Your task to perform on an android device: Show me the alarms in the clock app Image 0: 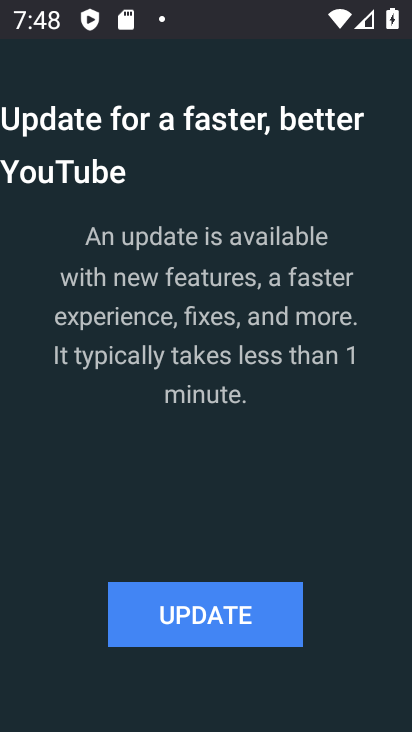
Step 0: click (258, 610)
Your task to perform on an android device: Show me the alarms in the clock app Image 1: 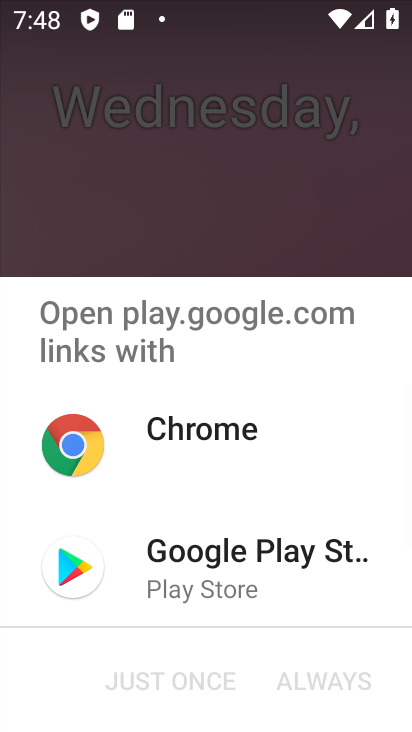
Step 1: click (154, 576)
Your task to perform on an android device: Show me the alarms in the clock app Image 2: 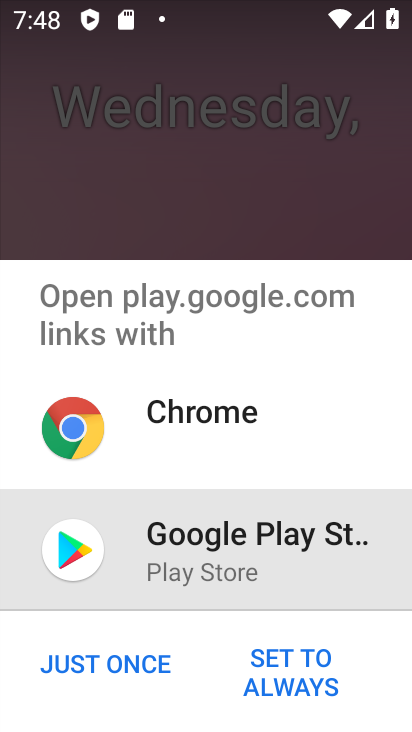
Step 2: click (288, 665)
Your task to perform on an android device: Show me the alarms in the clock app Image 3: 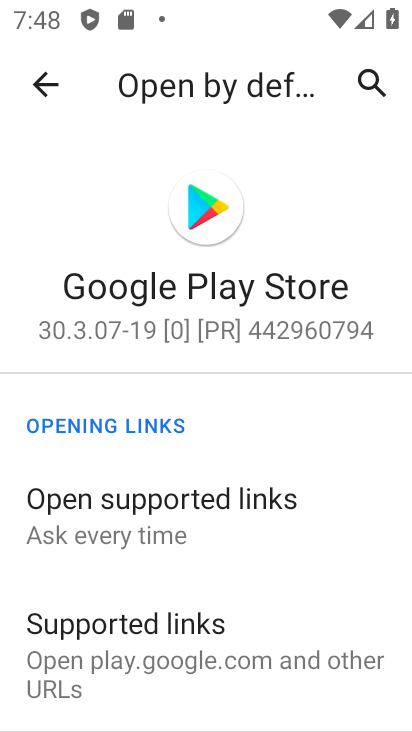
Step 3: drag from (201, 602) to (264, 178)
Your task to perform on an android device: Show me the alarms in the clock app Image 4: 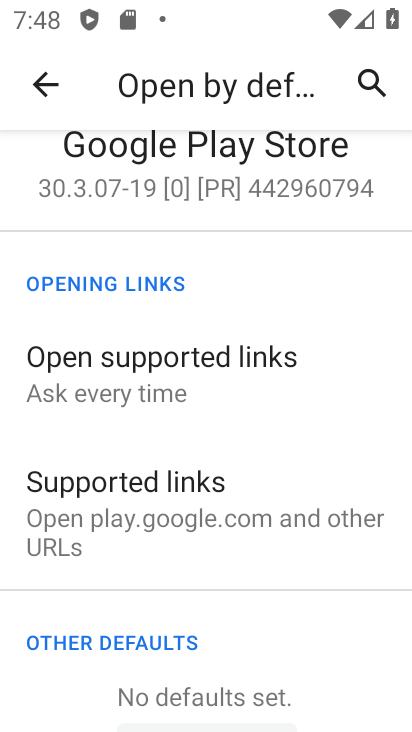
Step 4: drag from (263, 702) to (352, 413)
Your task to perform on an android device: Show me the alarms in the clock app Image 5: 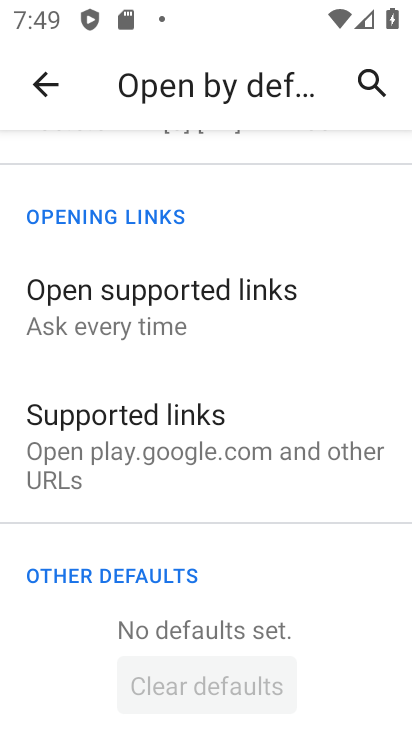
Step 5: press home button
Your task to perform on an android device: Show me the alarms in the clock app Image 6: 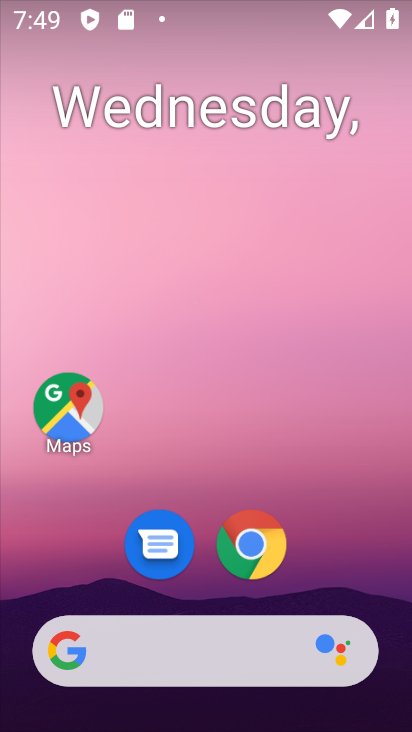
Step 6: drag from (206, 672) to (268, 323)
Your task to perform on an android device: Show me the alarms in the clock app Image 7: 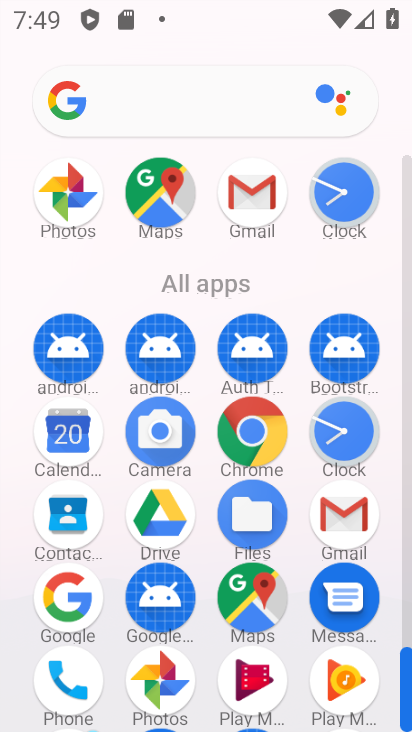
Step 7: click (335, 446)
Your task to perform on an android device: Show me the alarms in the clock app Image 8: 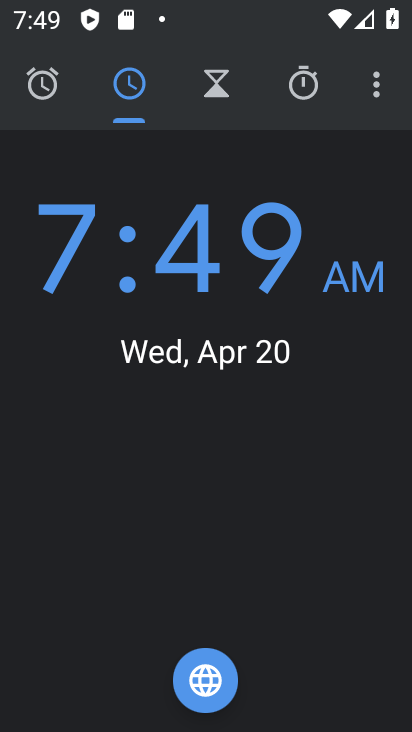
Step 8: click (37, 84)
Your task to perform on an android device: Show me the alarms in the clock app Image 9: 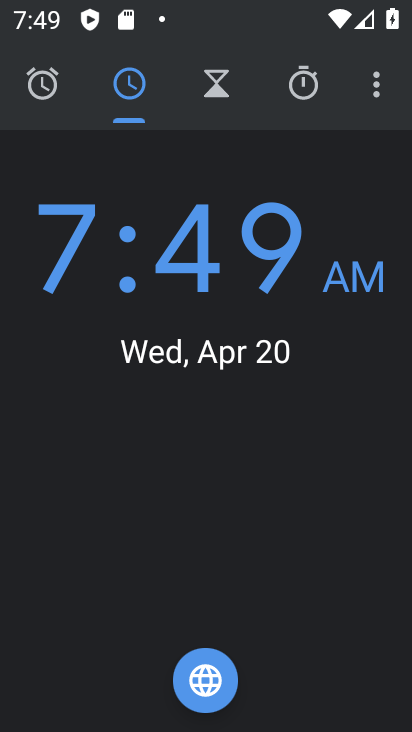
Step 9: click (43, 89)
Your task to perform on an android device: Show me the alarms in the clock app Image 10: 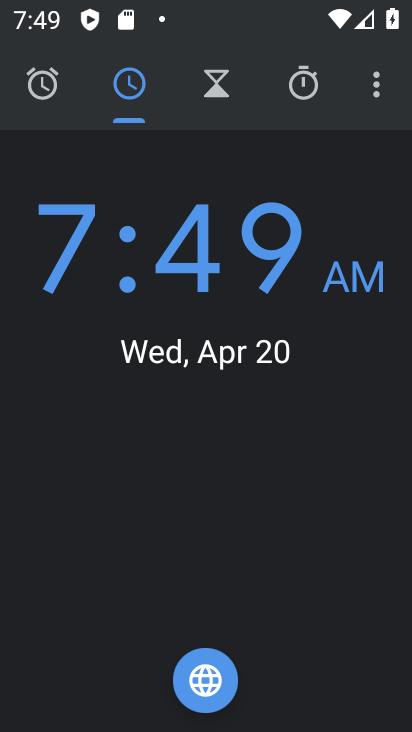
Step 10: click (50, 93)
Your task to perform on an android device: Show me the alarms in the clock app Image 11: 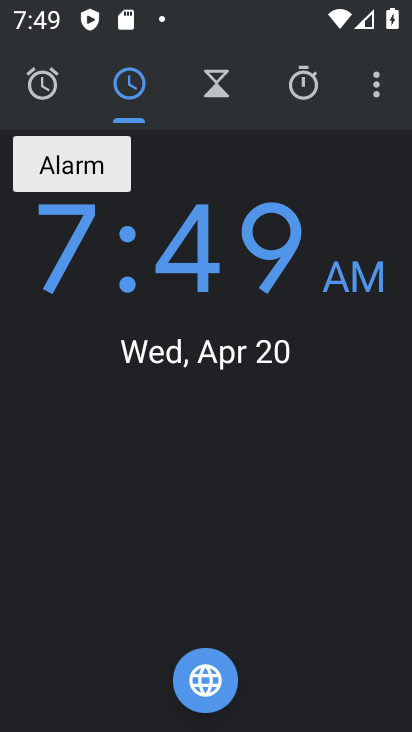
Step 11: click (43, 89)
Your task to perform on an android device: Show me the alarms in the clock app Image 12: 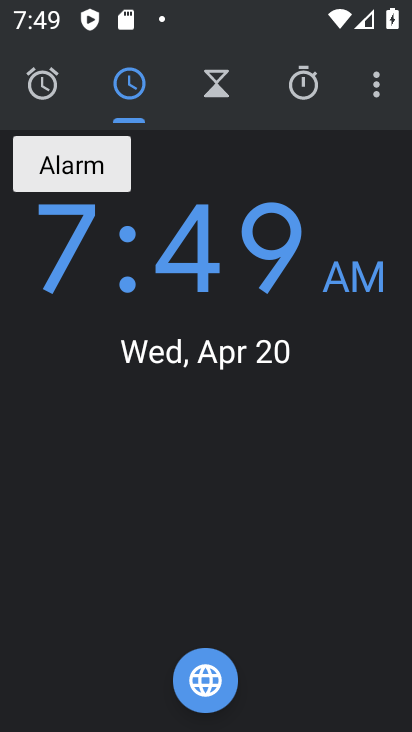
Step 12: click (43, 89)
Your task to perform on an android device: Show me the alarms in the clock app Image 13: 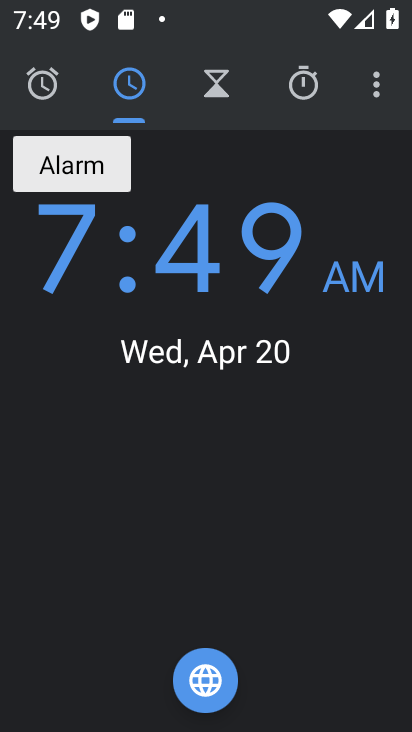
Step 13: click (43, 89)
Your task to perform on an android device: Show me the alarms in the clock app Image 14: 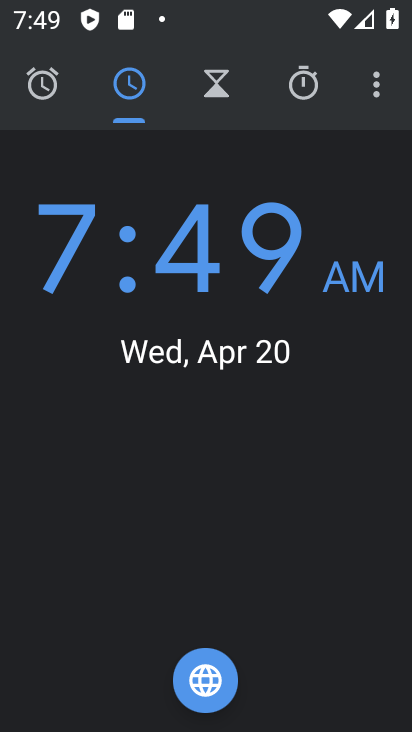
Step 14: click (46, 94)
Your task to perform on an android device: Show me the alarms in the clock app Image 15: 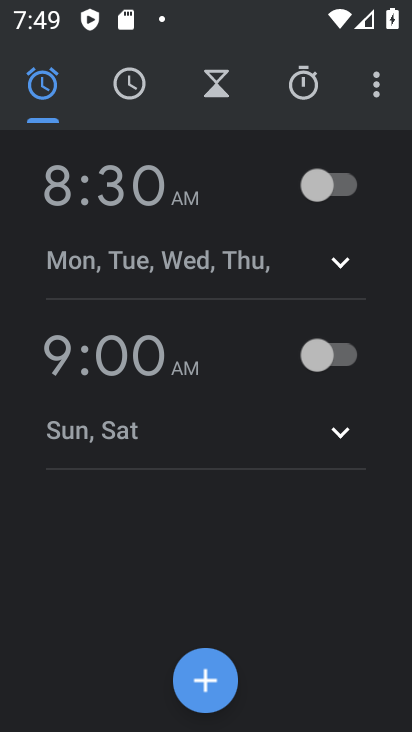
Step 15: task complete